Your task to perform on an android device: set the stopwatch Image 0: 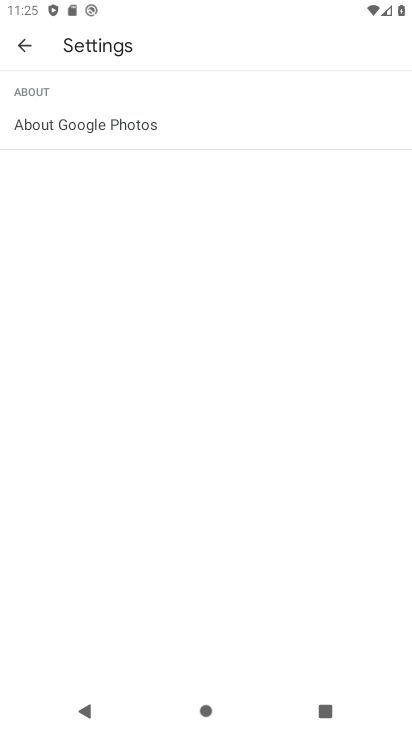
Step 0: click (317, 340)
Your task to perform on an android device: set the stopwatch Image 1: 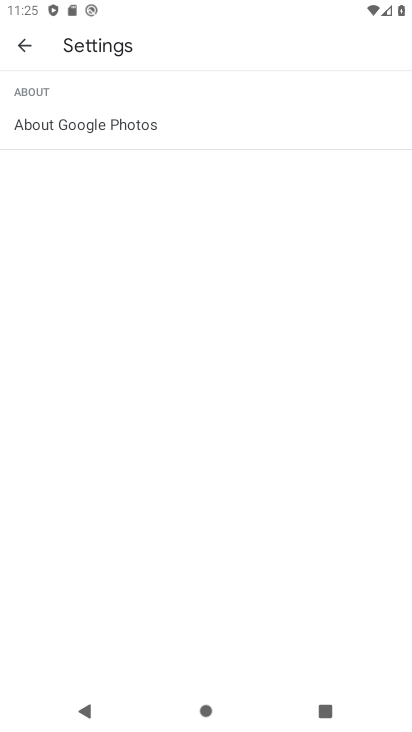
Step 1: press home button
Your task to perform on an android device: set the stopwatch Image 2: 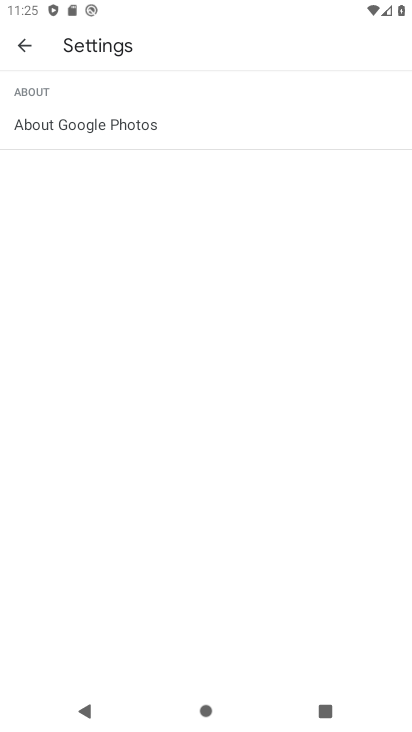
Step 2: press home button
Your task to perform on an android device: set the stopwatch Image 3: 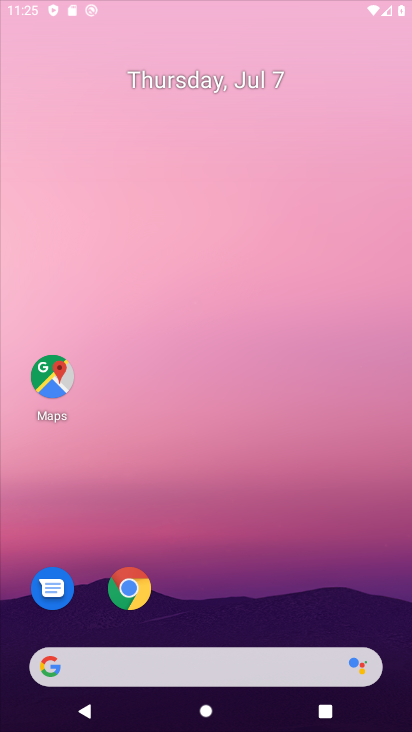
Step 3: drag from (244, 40) to (238, 144)
Your task to perform on an android device: set the stopwatch Image 4: 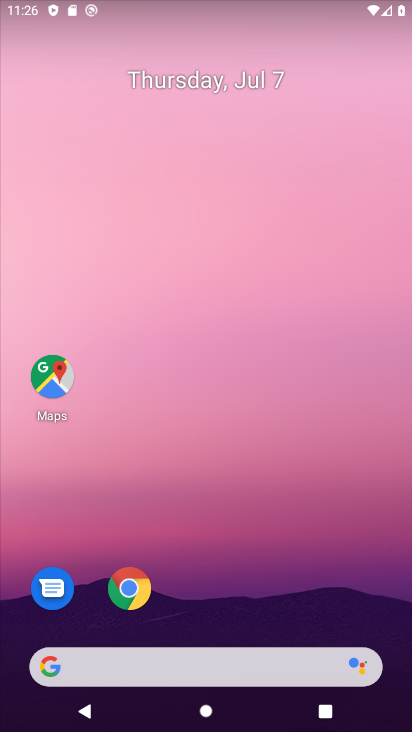
Step 4: drag from (179, 653) to (257, 93)
Your task to perform on an android device: set the stopwatch Image 5: 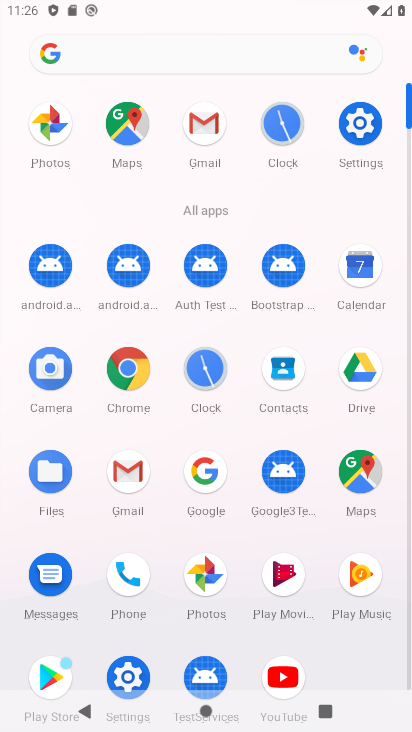
Step 5: click (213, 354)
Your task to perform on an android device: set the stopwatch Image 6: 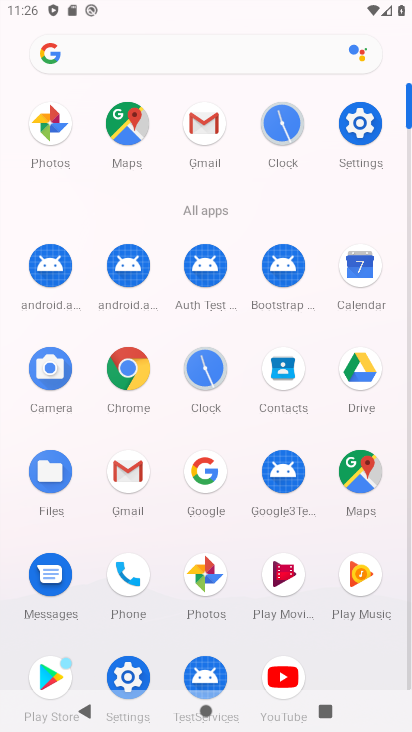
Step 6: click (215, 355)
Your task to perform on an android device: set the stopwatch Image 7: 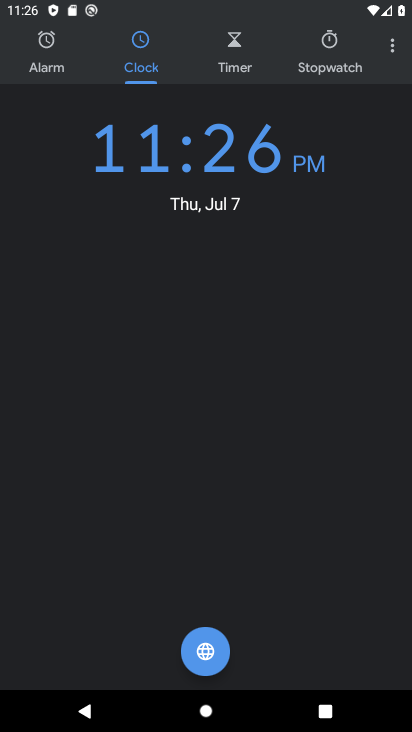
Step 7: click (324, 35)
Your task to perform on an android device: set the stopwatch Image 8: 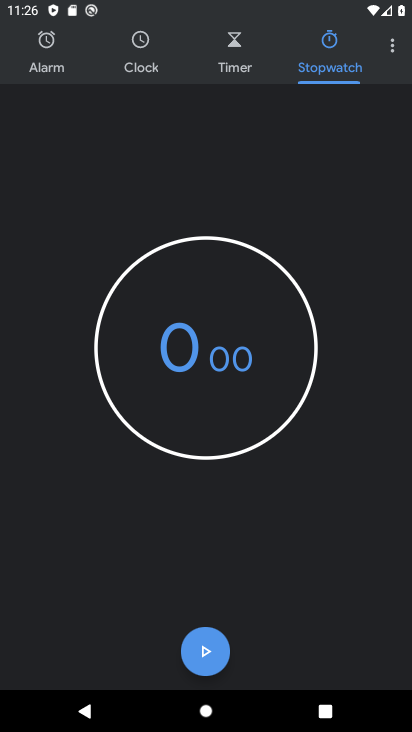
Step 8: drag from (165, 508) to (348, 124)
Your task to perform on an android device: set the stopwatch Image 9: 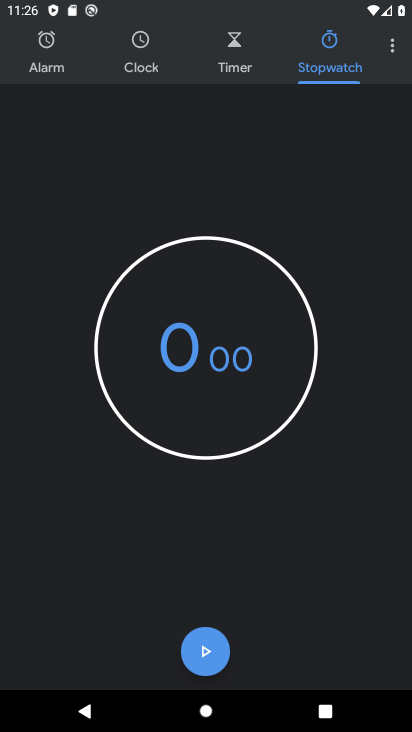
Step 9: drag from (220, 473) to (228, 315)
Your task to perform on an android device: set the stopwatch Image 10: 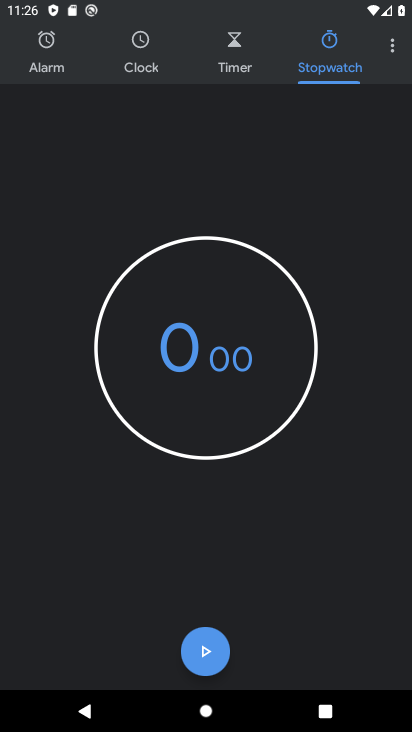
Step 10: click (209, 648)
Your task to perform on an android device: set the stopwatch Image 11: 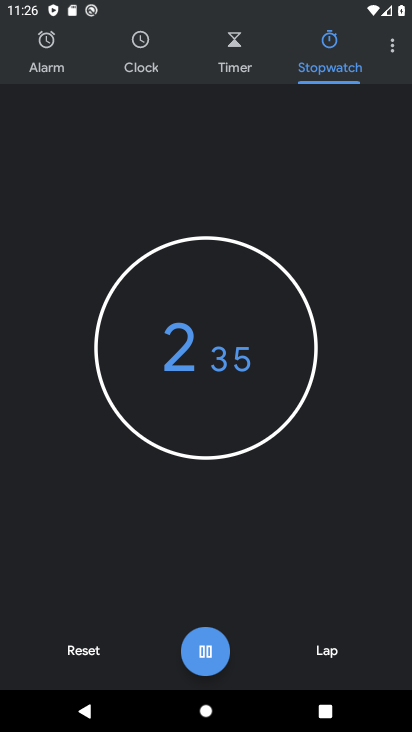
Step 11: task complete